Your task to perform on an android device: Go to Reddit.com Image 0: 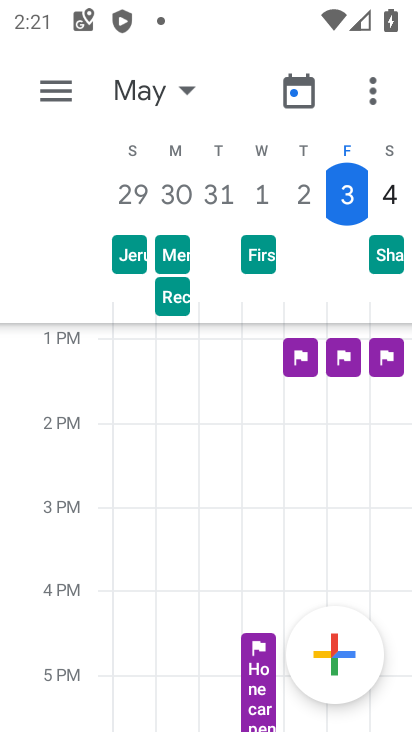
Step 0: press home button
Your task to perform on an android device: Go to Reddit.com Image 1: 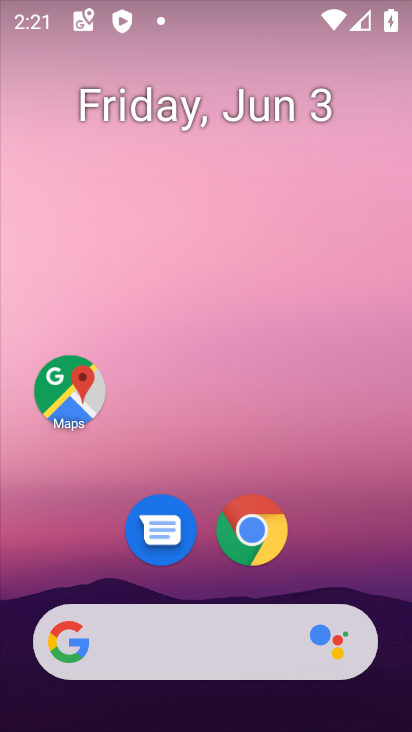
Step 1: click (165, 651)
Your task to perform on an android device: Go to Reddit.com Image 2: 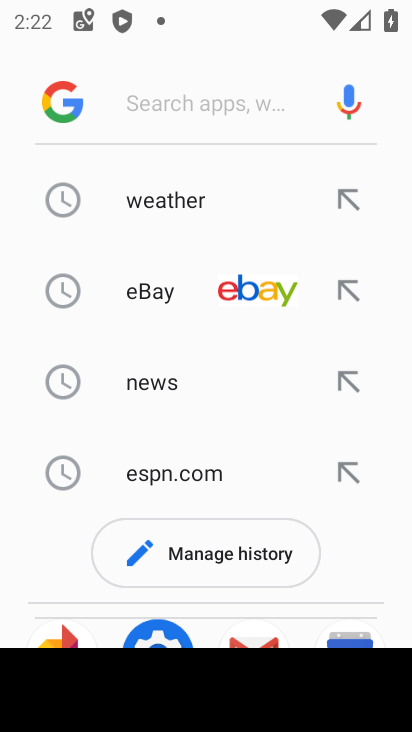
Step 2: type "reddit.com"
Your task to perform on an android device: Go to Reddit.com Image 3: 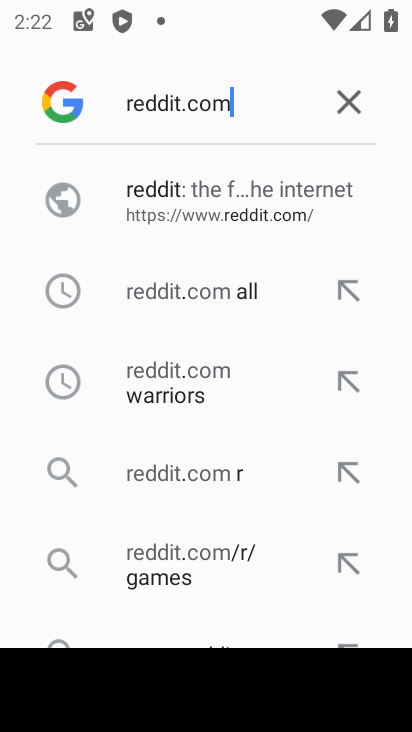
Step 3: click (217, 191)
Your task to perform on an android device: Go to Reddit.com Image 4: 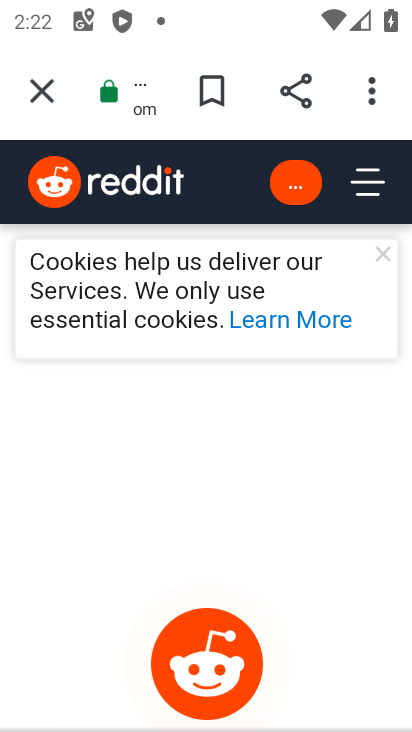
Step 4: task complete